Your task to perform on an android device: turn on priority inbox in the gmail app Image 0: 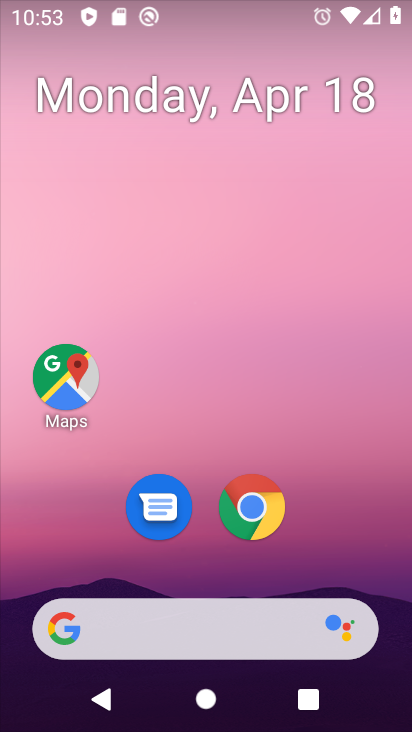
Step 0: click (293, 399)
Your task to perform on an android device: turn on priority inbox in the gmail app Image 1: 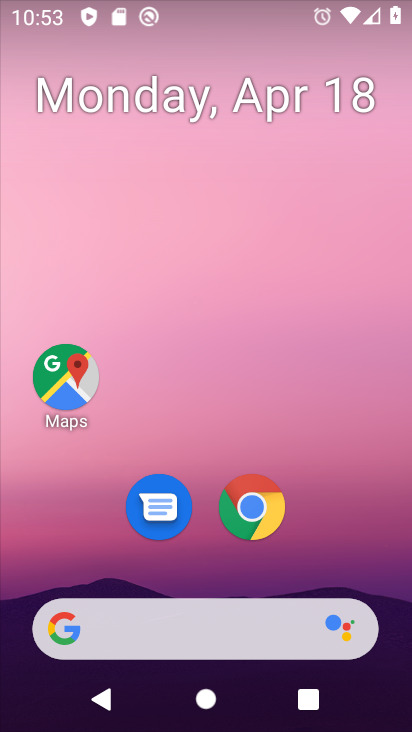
Step 1: drag from (251, 668) to (193, 196)
Your task to perform on an android device: turn on priority inbox in the gmail app Image 2: 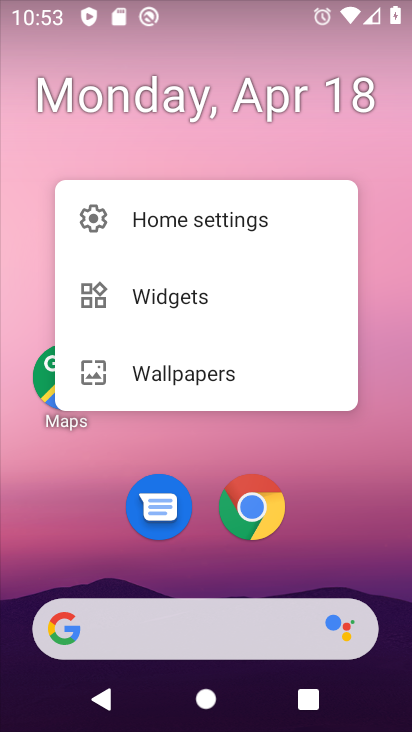
Step 2: click (199, 442)
Your task to perform on an android device: turn on priority inbox in the gmail app Image 3: 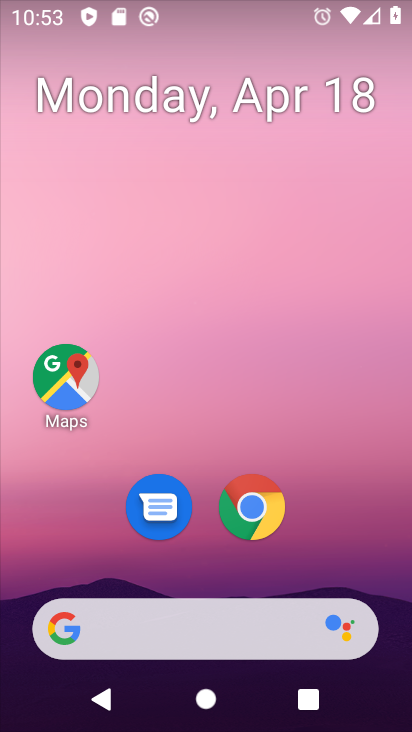
Step 3: drag from (217, 667) to (188, 417)
Your task to perform on an android device: turn on priority inbox in the gmail app Image 4: 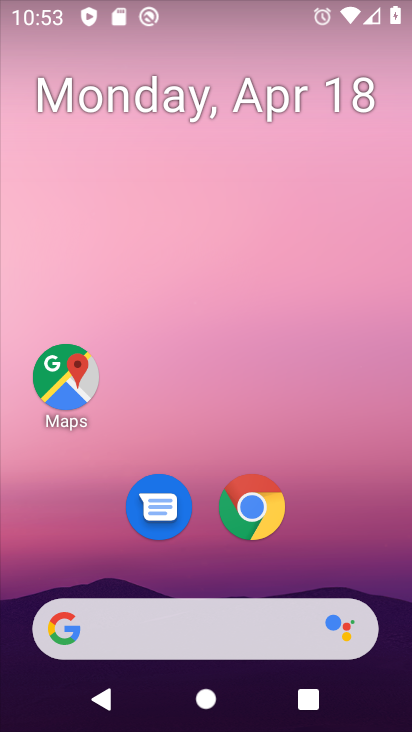
Step 4: drag from (246, 671) to (222, 189)
Your task to perform on an android device: turn on priority inbox in the gmail app Image 5: 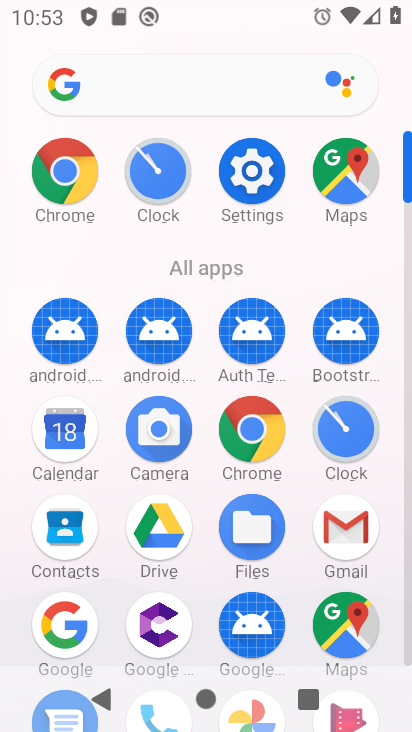
Step 5: click (347, 536)
Your task to perform on an android device: turn on priority inbox in the gmail app Image 6: 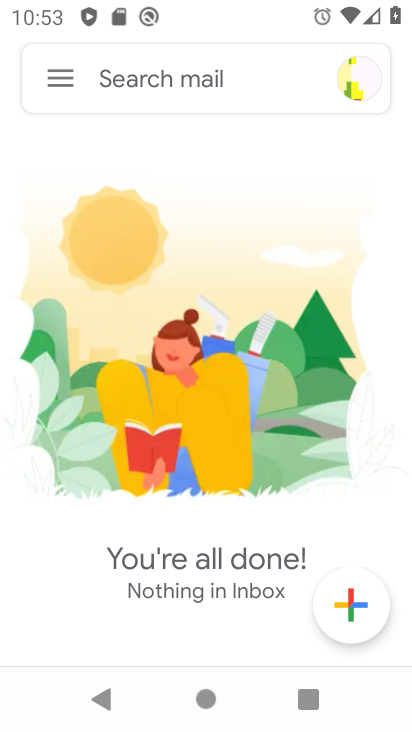
Step 6: click (66, 82)
Your task to perform on an android device: turn on priority inbox in the gmail app Image 7: 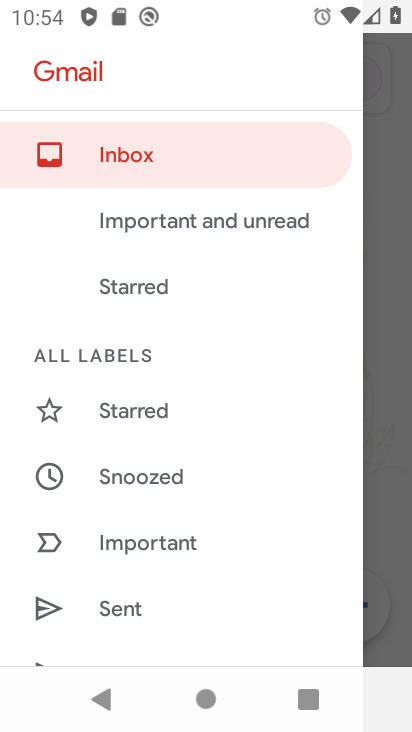
Step 7: drag from (148, 617) to (198, 12)
Your task to perform on an android device: turn on priority inbox in the gmail app Image 8: 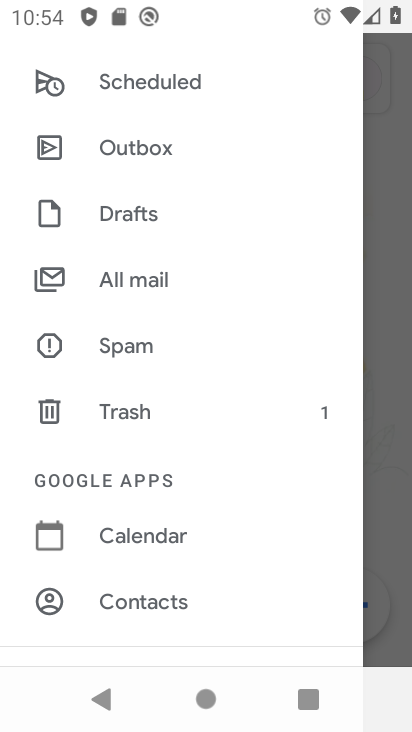
Step 8: drag from (147, 536) to (142, 492)
Your task to perform on an android device: turn on priority inbox in the gmail app Image 9: 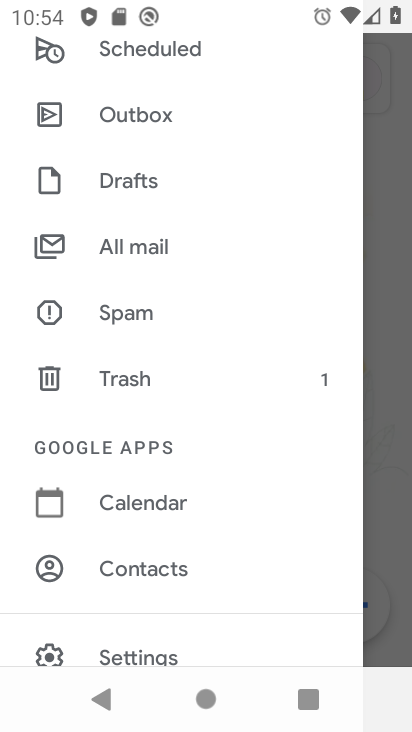
Step 9: click (132, 654)
Your task to perform on an android device: turn on priority inbox in the gmail app Image 10: 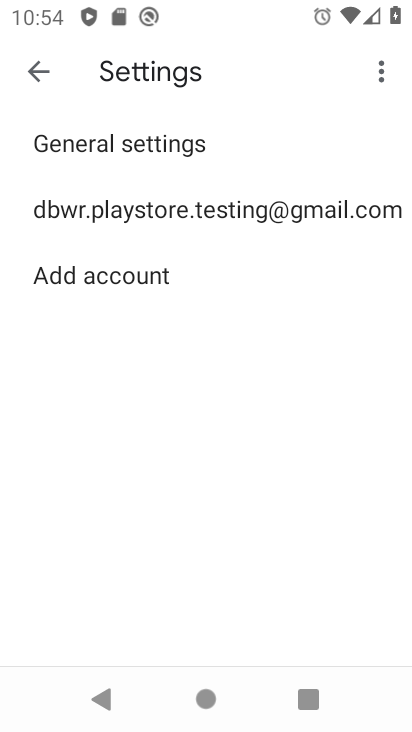
Step 10: click (156, 228)
Your task to perform on an android device: turn on priority inbox in the gmail app Image 11: 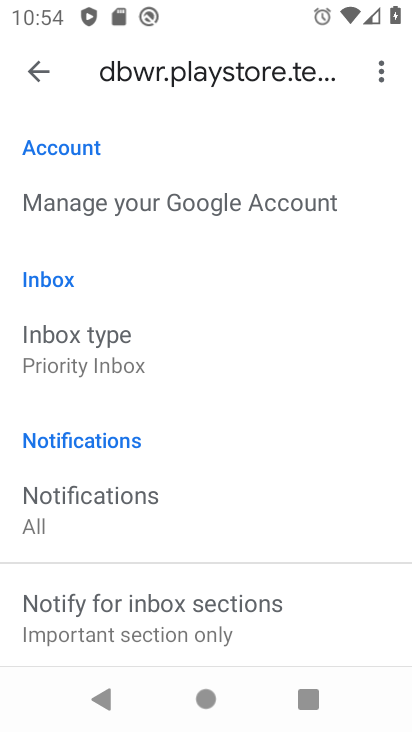
Step 11: click (118, 356)
Your task to perform on an android device: turn on priority inbox in the gmail app Image 12: 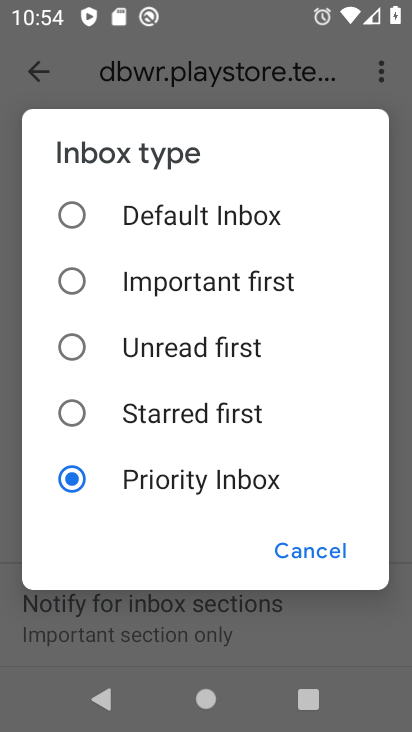
Step 12: task complete